Your task to perform on an android device: Go to network settings Image 0: 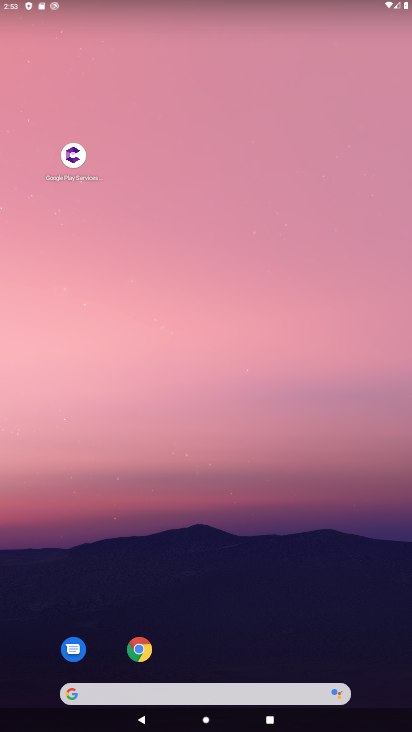
Step 0: drag from (294, 701) to (139, 7)
Your task to perform on an android device: Go to network settings Image 1: 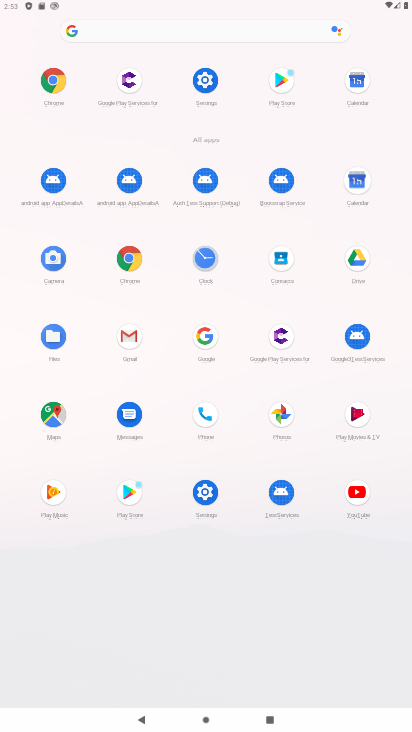
Step 1: click (204, 484)
Your task to perform on an android device: Go to network settings Image 2: 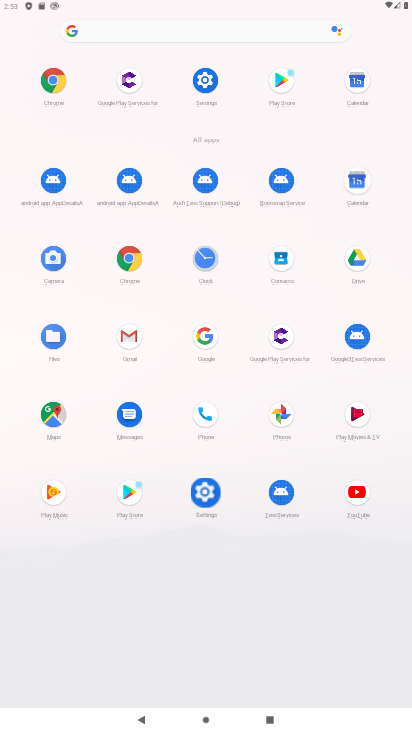
Step 2: click (204, 485)
Your task to perform on an android device: Go to network settings Image 3: 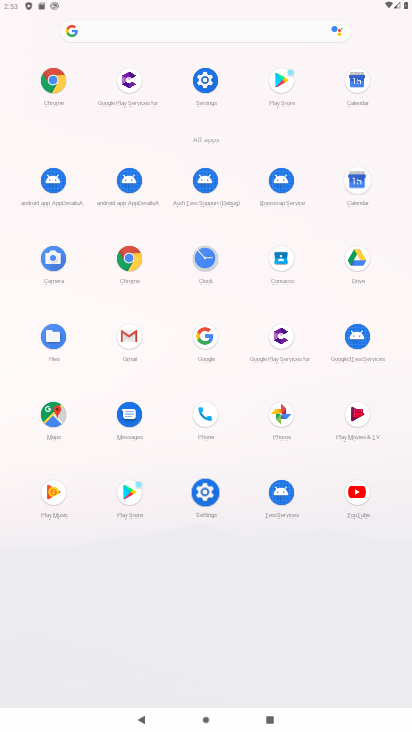
Step 3: click (200, 489)
Your task to perform on an android device: Go to network settings Image 4: 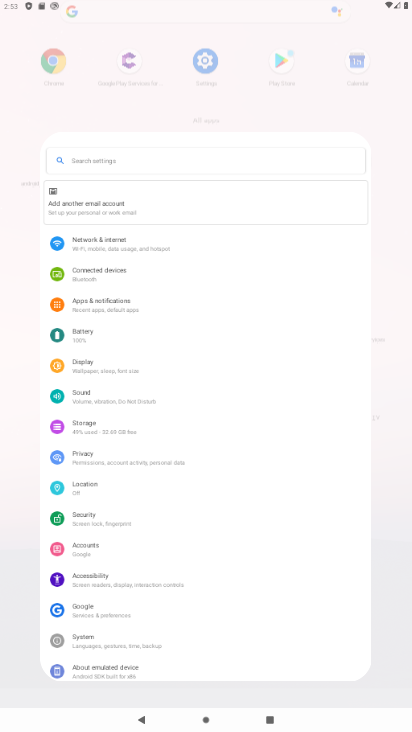
Step 4: click (200, 489)
Your task to perform on an android device: Go to network settings Image 5: 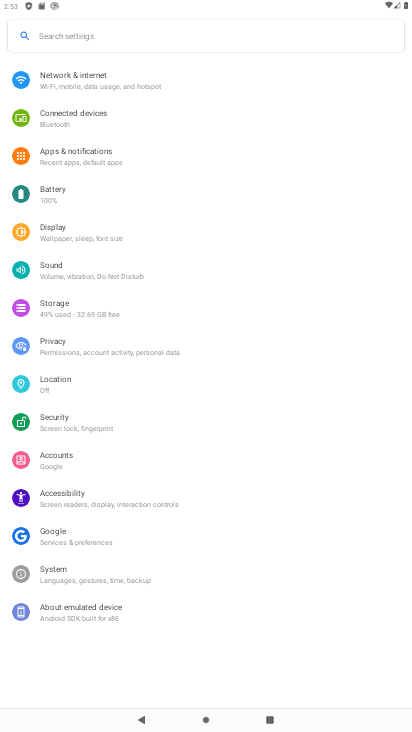
Step 5: click (204, 492)
Your task to perform on an android device: Go to network settings Image 6: 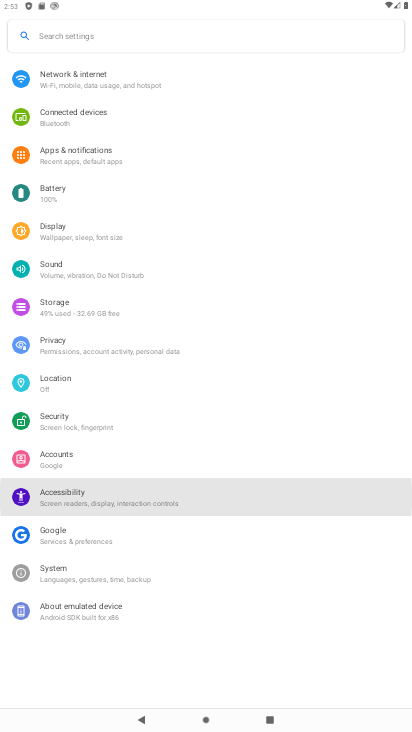
Step 6: click (201, 490)
Your task to perform on an android device: Go to network settings Image 7: 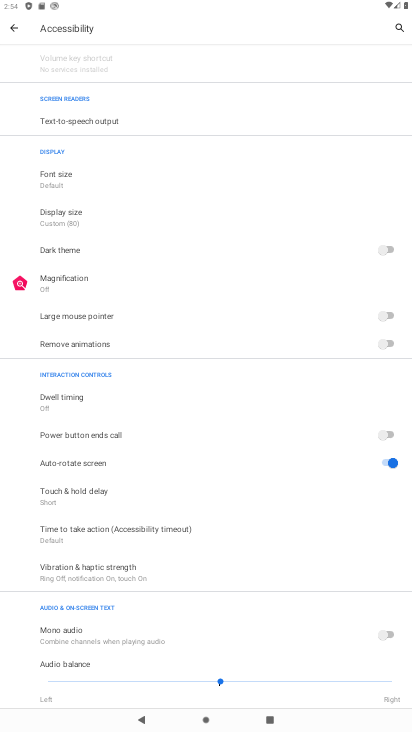
Step 7: click (6, 21)
Your task to perform on an android device: Go to network settings Image 8: 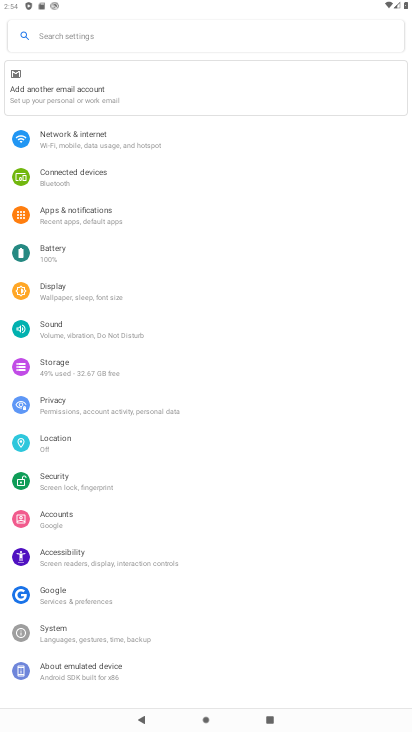
Step 8: click (71, 133)
Your task to perform on an android device: Go to network settings Image 9: 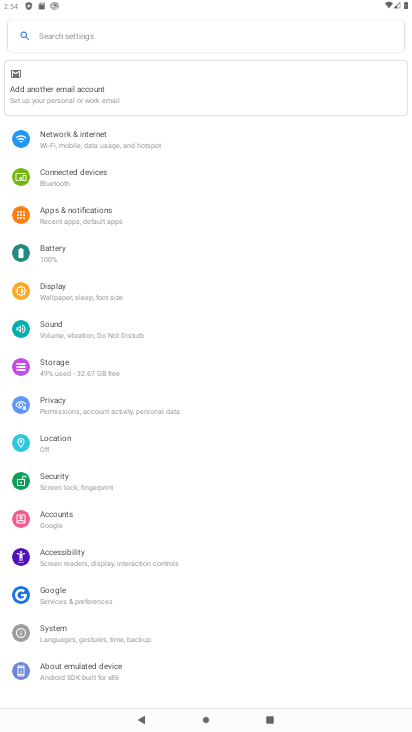
Step 9: click (71, 136)
Your task to perform on an android device: Go to network settings Image 10: 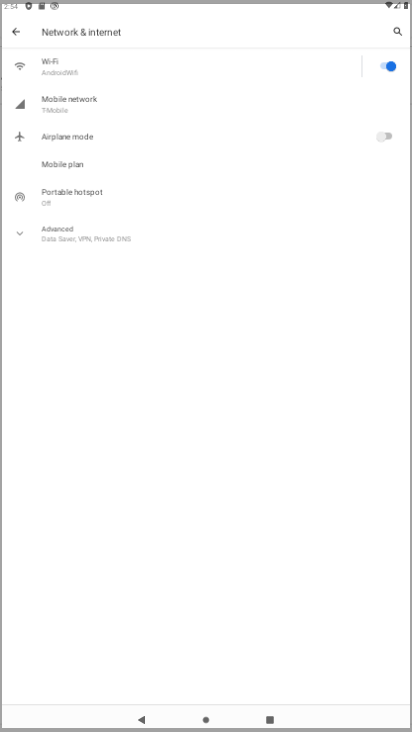
Step 10: click (78, 134)
Your task to perform on an android device: Go to network settings Image 11: 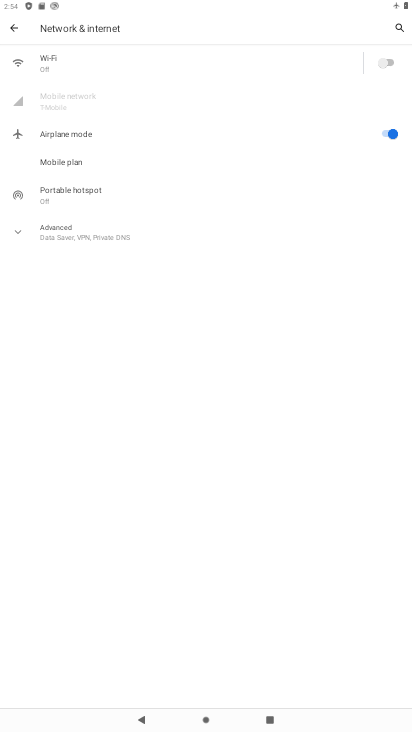
Step 11: click (378, 60)
Your task to perform on an android device: Go to network settings Image 12: 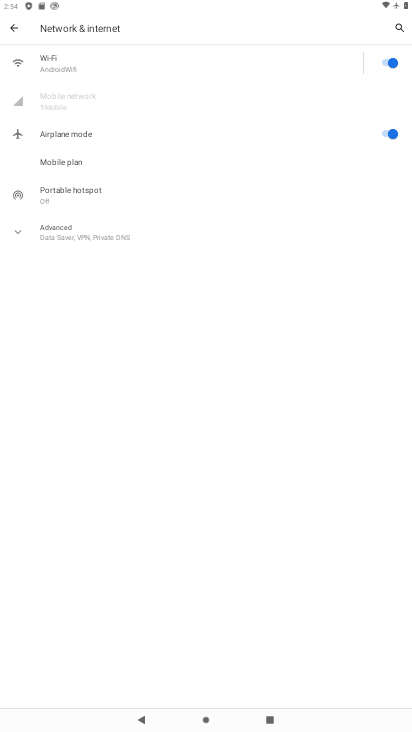
Step 12: task complete